Your task to perform on an android device: check battery use Image 0: 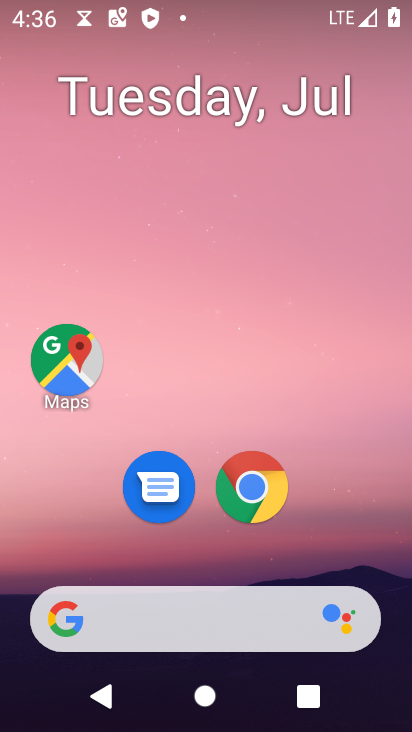
Step 0: drag from (179, 506) to (252, 7)
Your task to perform on an android device: check battery use Image 1: 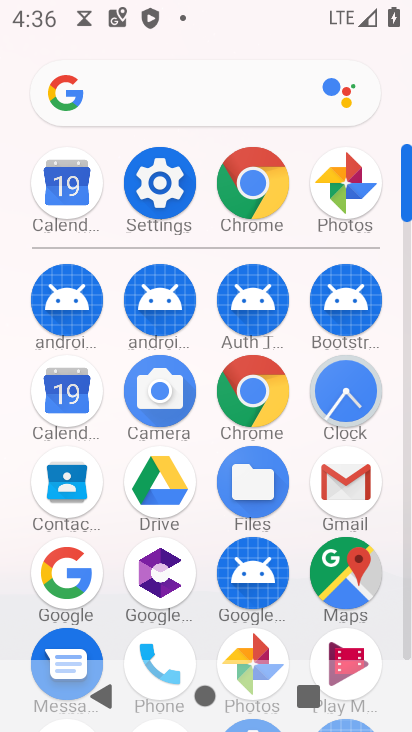
Step 1: click (142, 151)
Your task to perform on an android device: check battery use Image 2: 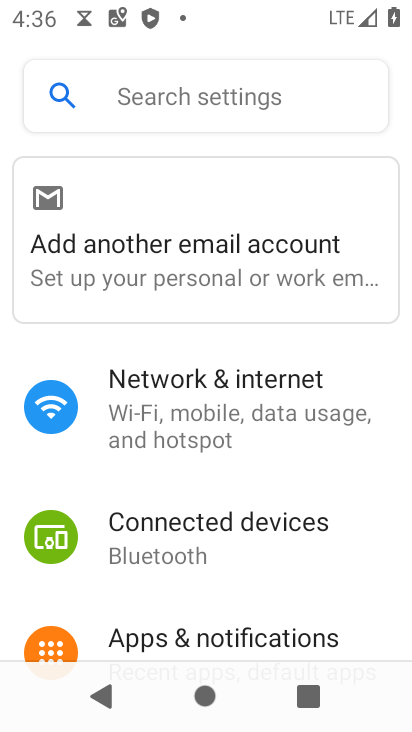
Step 2: drag from (184, 575) to (258, 34)
Your task to perform on an android device: check battery use Image 3: 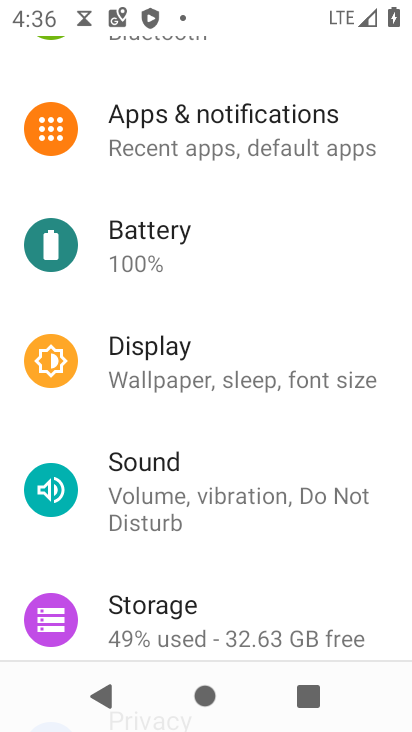
Step 3: click (175, 258)
Your task to perform on an android device: check battery use Image 4: 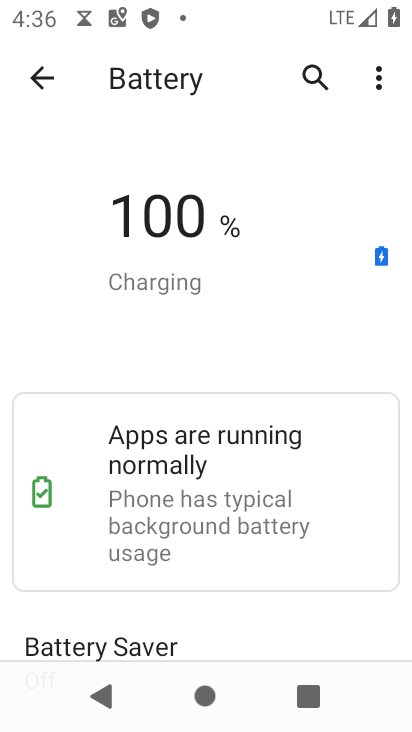
Step 4: click (375, 67)
Your task to perform on an android device: check battery use Image 5: 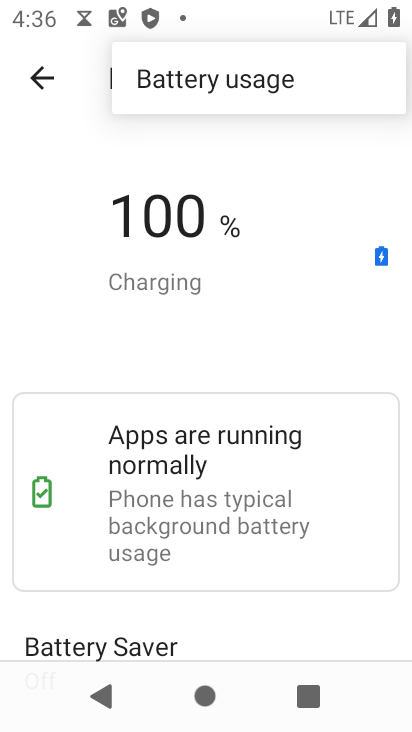
Step 5: click (259, 85)
Your task to perform on an android device: check battery use Image 6: 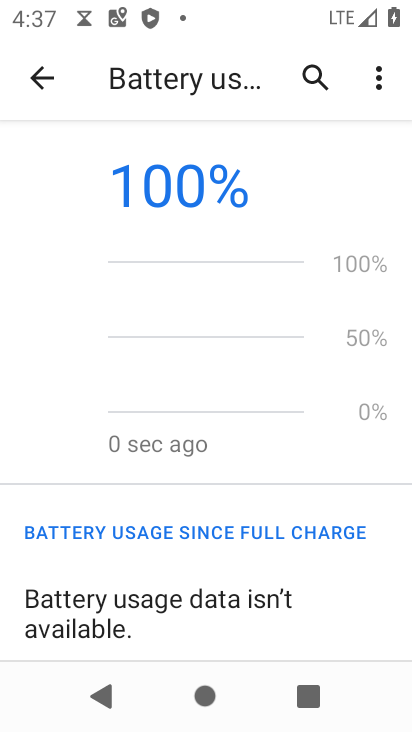
Step 6: task complete